Your task to perform on an android device: Go to privacy settings Image 0: 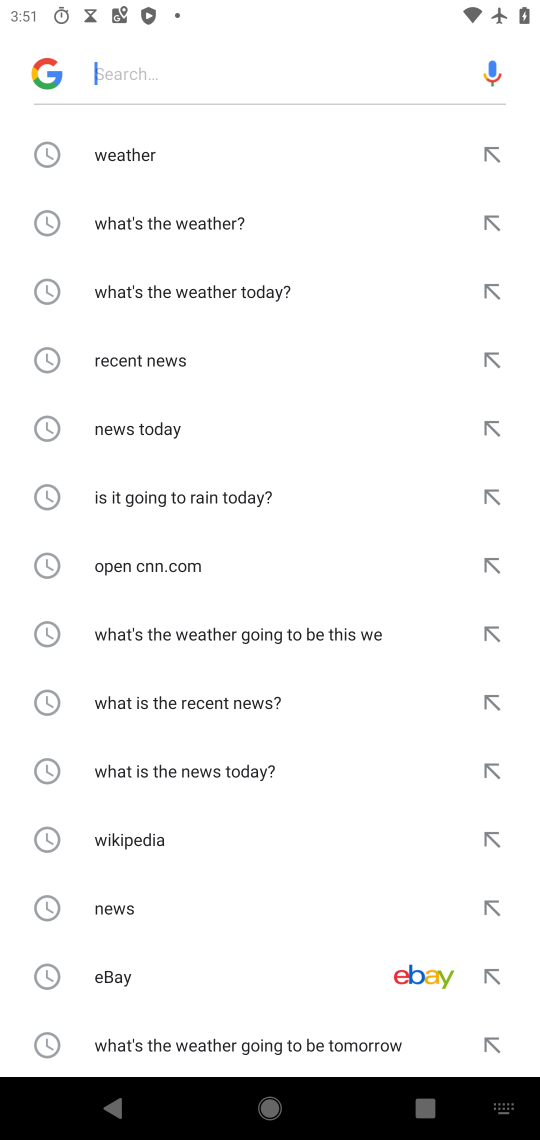
Step 0: press back button
Your task to perform on an android device: Go to privacy settings Image 1: 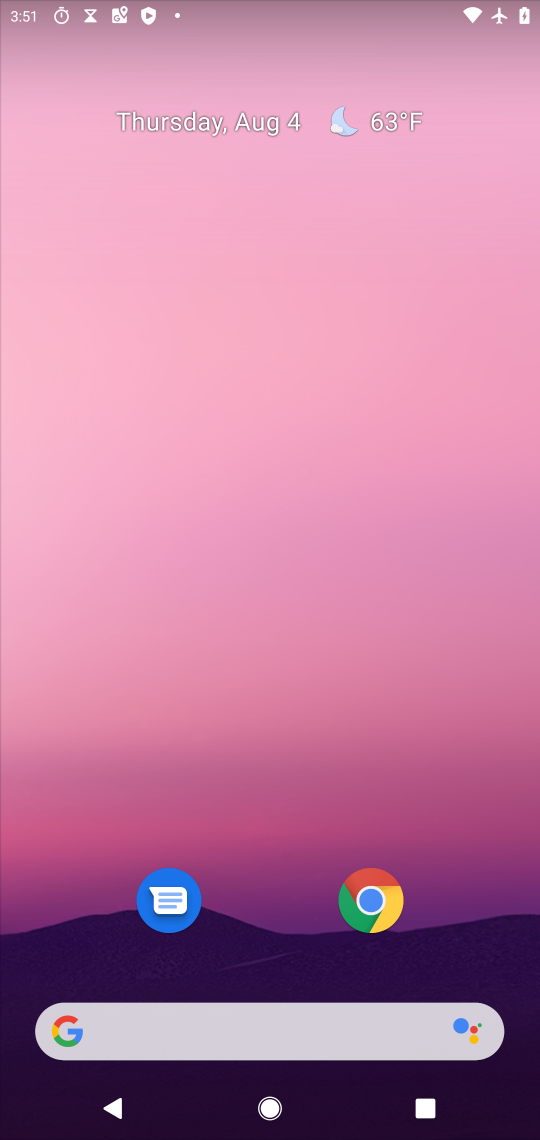
Step 1: drag from (480, 947) to (314, 235)
Your task to perform on an android device: Go to privacy settings Image 2: 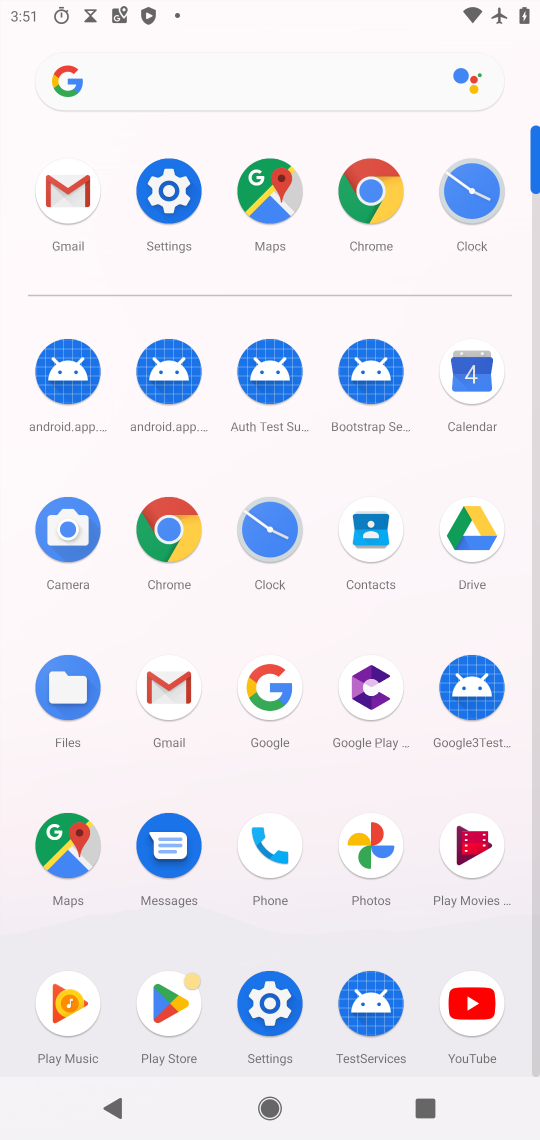
Step 2: click (168, 211)
Your task to perform on an android device: Go to privacy settings Image 3: 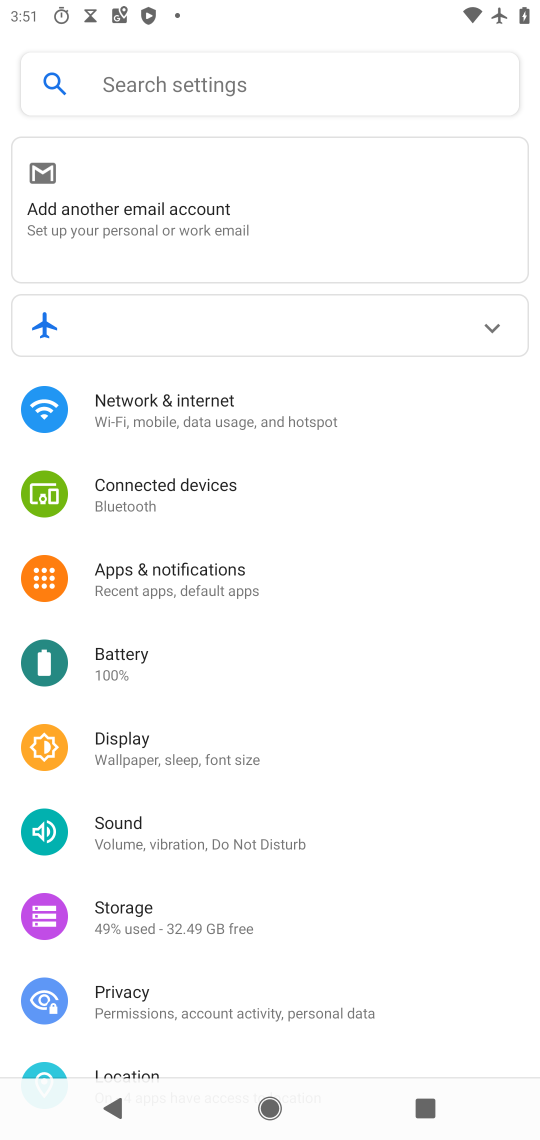
Step 3: click (283, 996)
Your task to perform on an android device: Go to privacy settings Image 4: 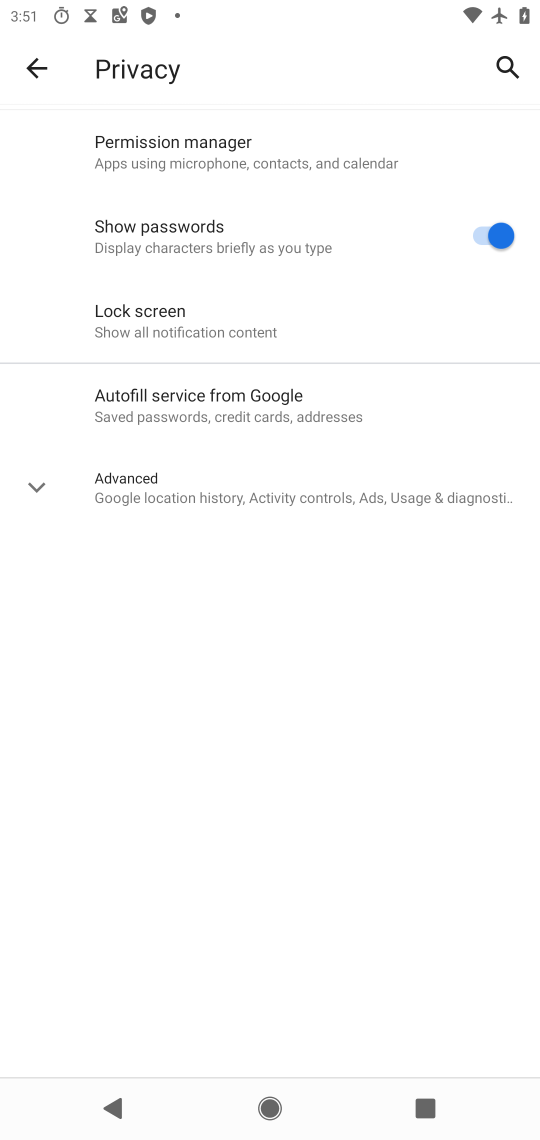
Step 4: task complete